Your task to perform on an android device: Search for "apple airpods" on target.com, select the first entry, add it to the cart, then select checkout. Image 0: 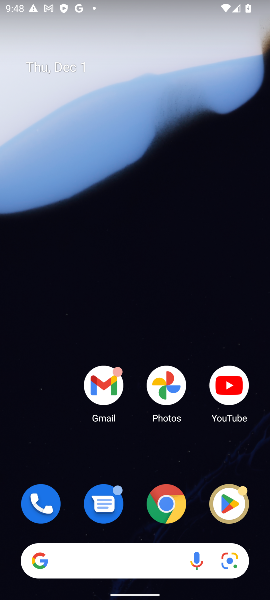
Step 0: click (170, 507)
Your task to perform on an android device: Search for "apple airpods" on target.com, select the first entry, add it to the cart, then select checkout. Image 1: 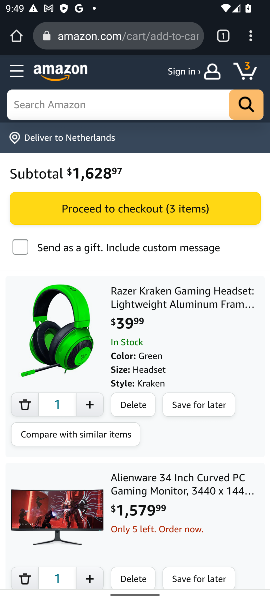
Step 1: click (110, 33)
Your task to perform on an android device: Search for "apple airpods" on target.com, select the first entry, add it to the cart, then select checkout. Image 2: 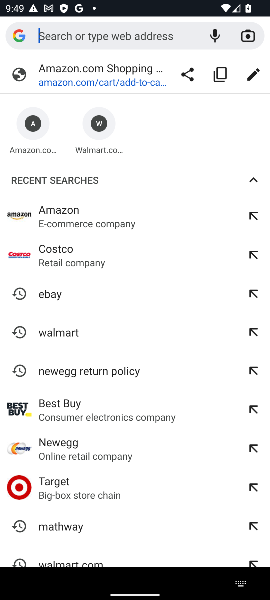
Step 2: type "target.com"
Your task to perform on an android device: Search for "apple airpods" on target.com, select the first entry, add it to the cart, then select checkout. Image 3: 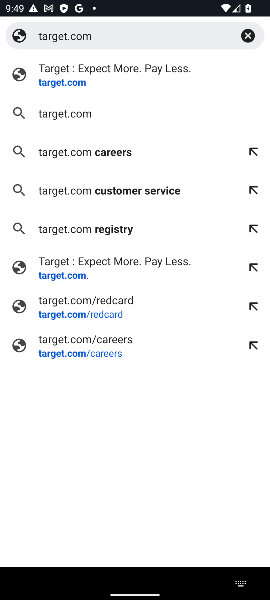
Step 3: click (63, 68)
Your task to perform on an android device: Search for "apple airpods" on target.com, select the first entry, add it to the cart, then select checkout. Image 4: 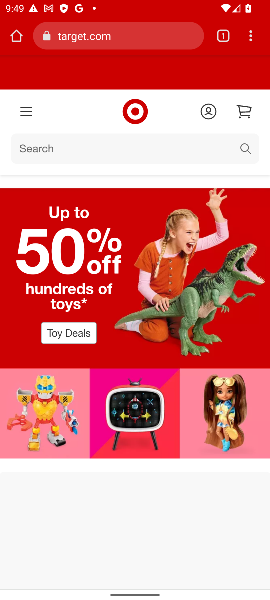
Step 4: click (210, 147)
Your task to perform on an android device: Search for "apple airpods" on target.com, select the first entry, add it to the cart, then select checkout. Image 5: 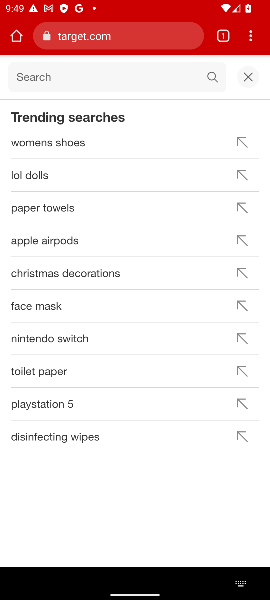
Step 5: type "apple airpods"
Your task to perform on an android device: Search for "apple airpods" on target.com, select the first entry, add it to the cart, then select checkout. Image 6: 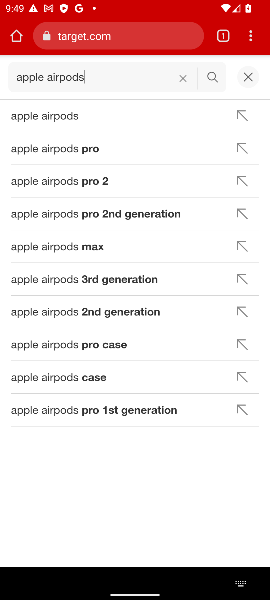
Step 6: click (77, 117)
Your task to perform on an android device: Search for "apple airpods" on target.com, select the first entry, add it to the cart, then select checkout. Image 7: 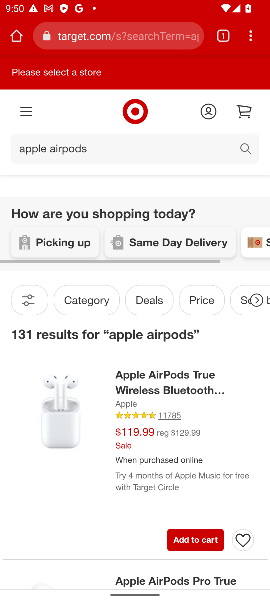
Step 7: click (77, 411)
Your task to perform on an android device: Search for "apple airpods" on target.com, select the first entry, add it to the cart, then select checkout. Image 8: 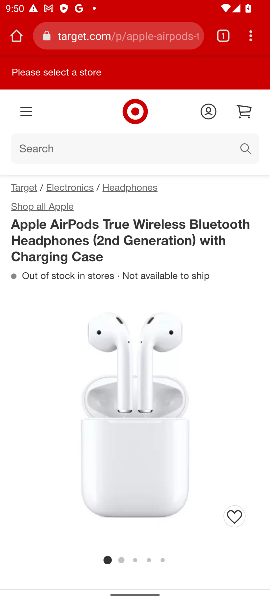
Step 8: drag from (185, 538) to (147, 191)
Your task to perform on an android device: Search for "apple airpods" on target.com, select the first entry, add it to the cart, then select checkout. Image 9: 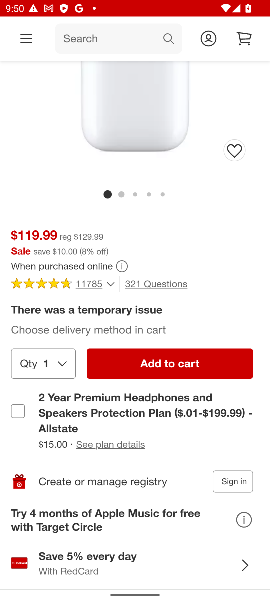
Step 9: click (171, 362)
Your task to perform on an android device: Search for "apple airpods" on target.com, select the first entry, add it to the cart, then select checkout. Image 10: 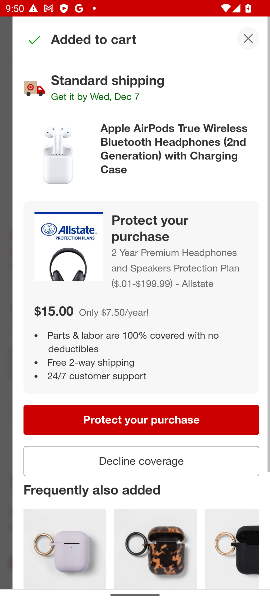
Step 10: click (246, 35)
Your task to perform on an android device: Search for "apple airpods" on target.com, select the first entry, add it to the cart, then select checkout. Image 11: 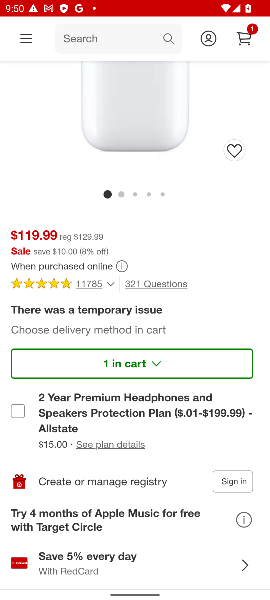
Step 11: click (247, 39)
Your task to perform on an android device: Search for "apple airpods" on target.com, select the first entry, add it to the cart, then select checkout. Image 12: 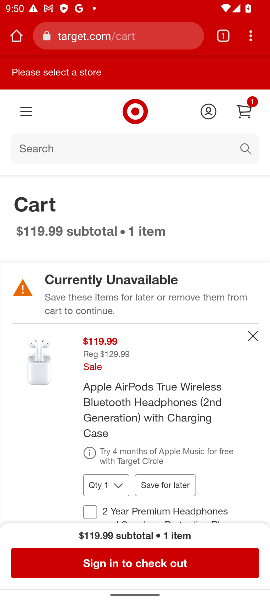
Step 12: click (142, 565)
Your task to perform on an android device: Search for "apple airpods" on target.com, select the first entry, add it to the cart, then select checkout. Image 13: 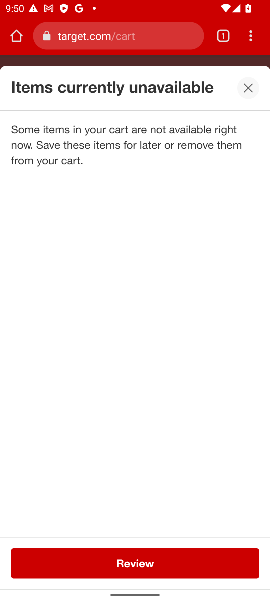
Step 13: task complete